Your task to perform on an android device: View the shopping cart on amazon.com. Image 0: 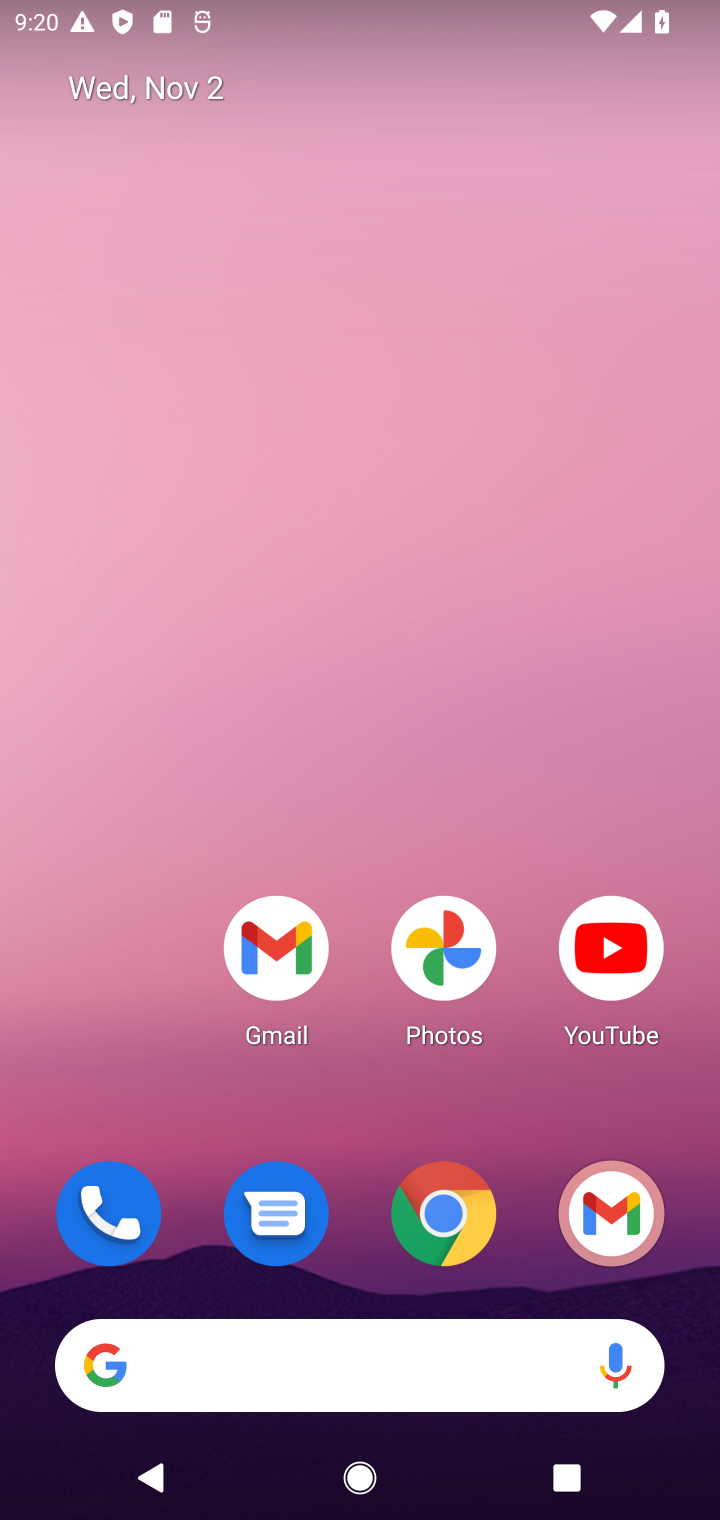
Step 0: click (443, 1215)
Your task to perform on an android device: View the shopping cart on amazon.com. Image 1: 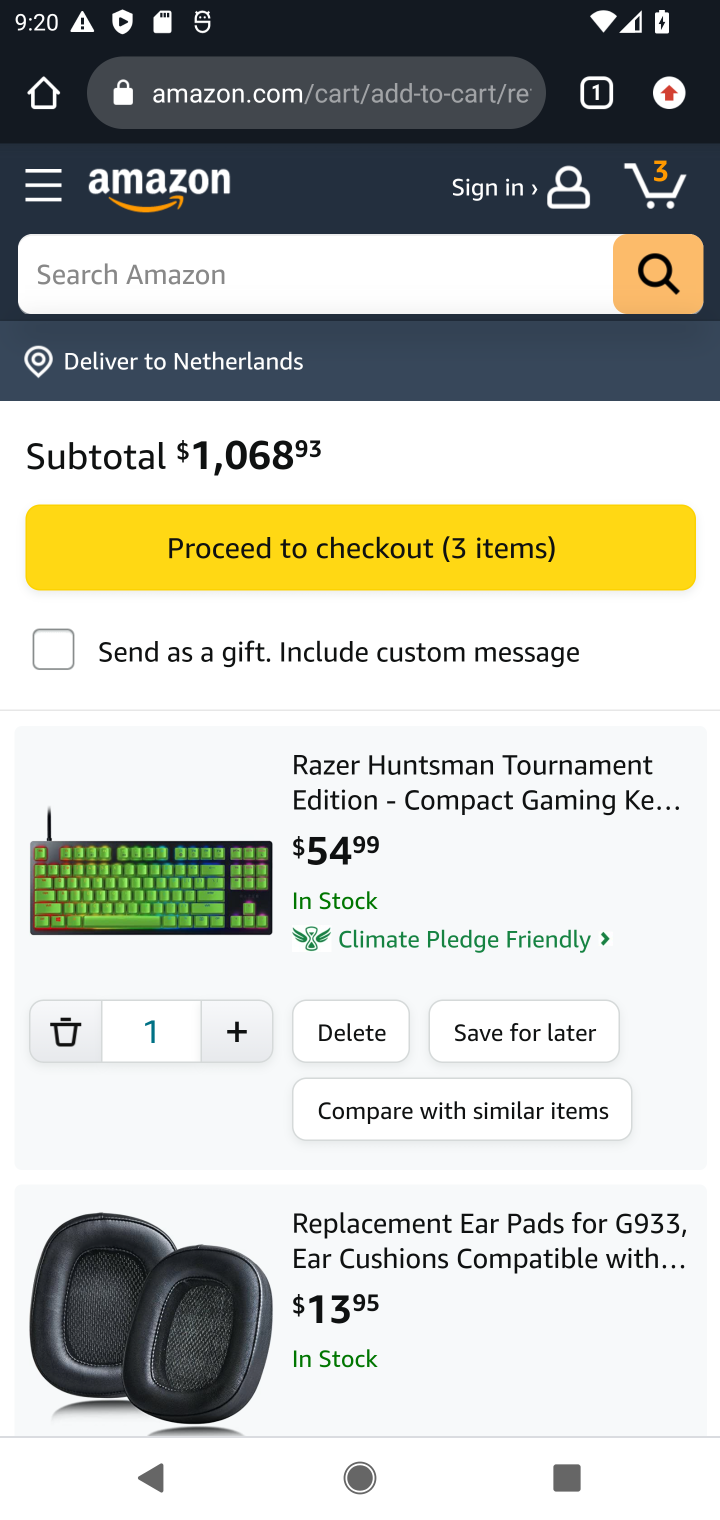
Step 1: click (669, 199)
Your task to perform on an android device: View the shopping cart on amazon.com. Image 2: 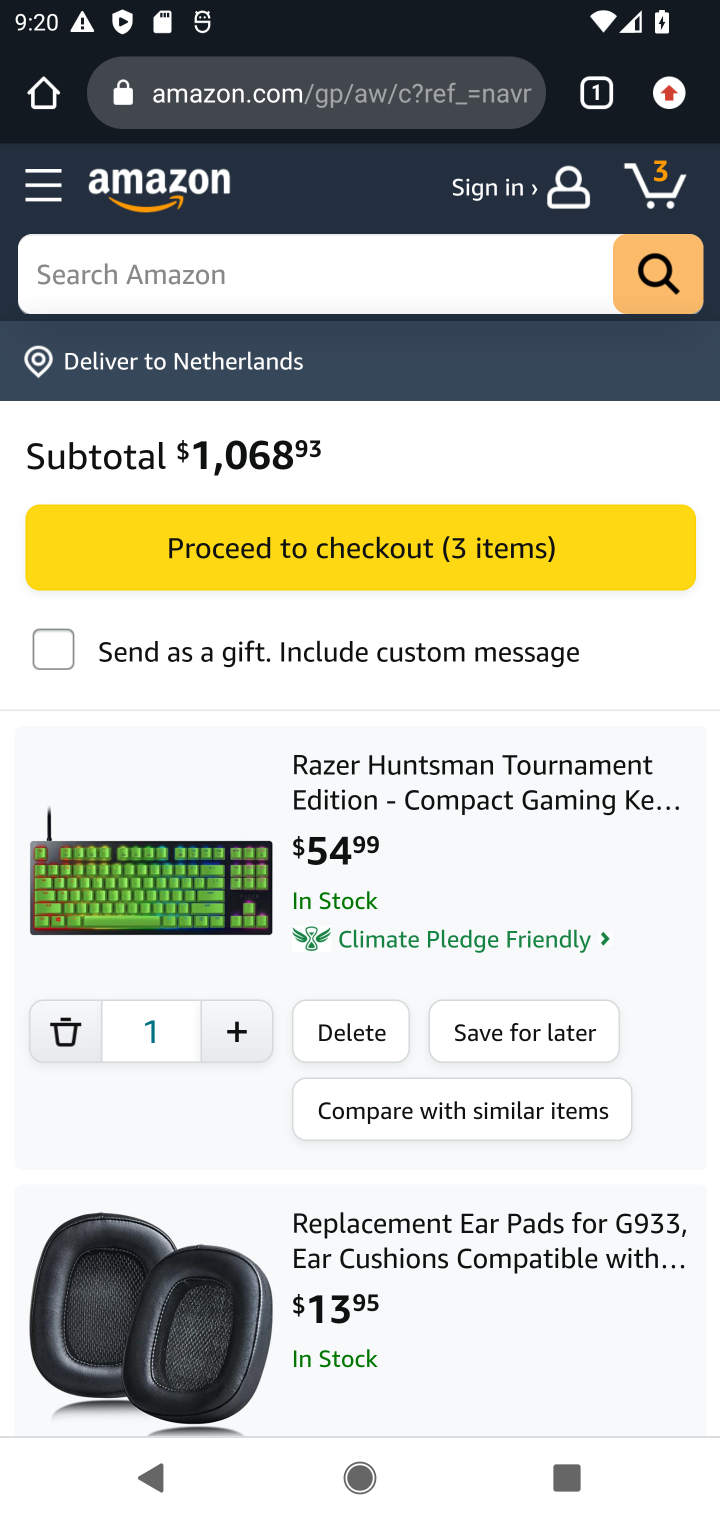
Step 2: task complete